Your task to perform on an android device: manage bookmarks in the chrome app Image 0: 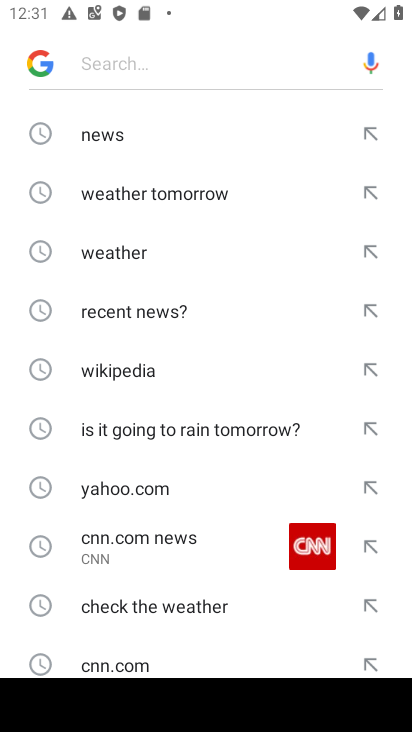
Step 0: press home button
Your task to perform on an android device: manage bookmarks in the chrome app Image 1: 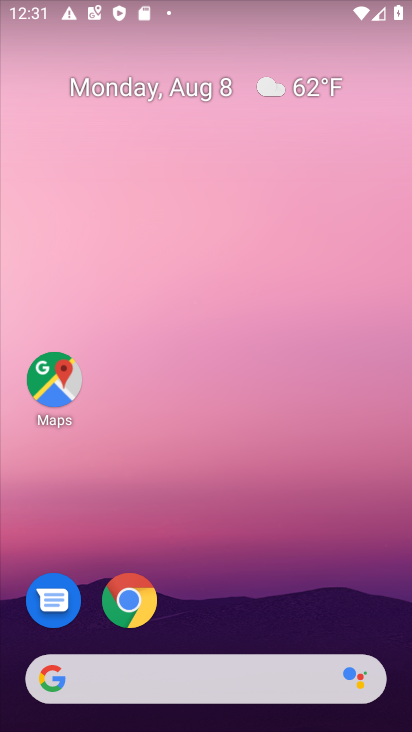
Step 1: click (141, 587)
Your task to perform on an android device: manage bookmarks in the chrome app Image 2: 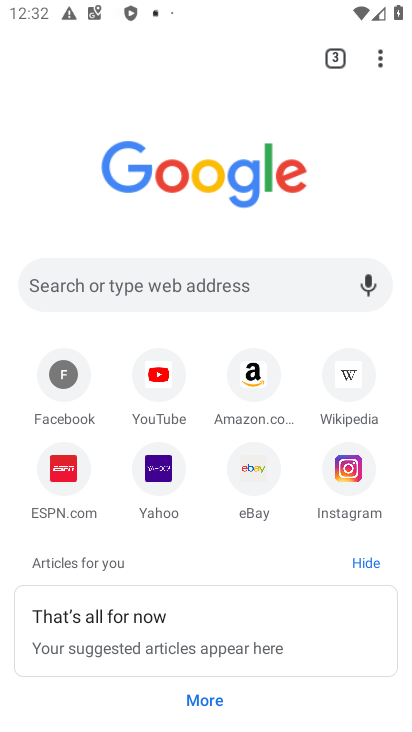
Step 2: click (379, 50)
Your task to perform on an android device: manage bookmarks in the chrome app Image 3: 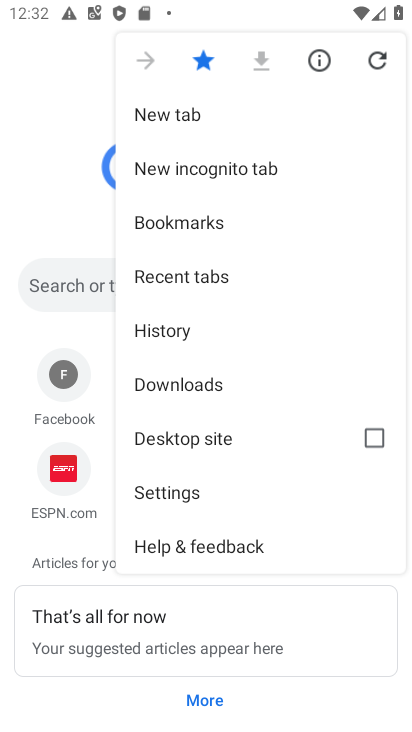
Step 3: click (269, 222)
Your task to perform on an android device: manage bookmarks in the chrome app Image 4: 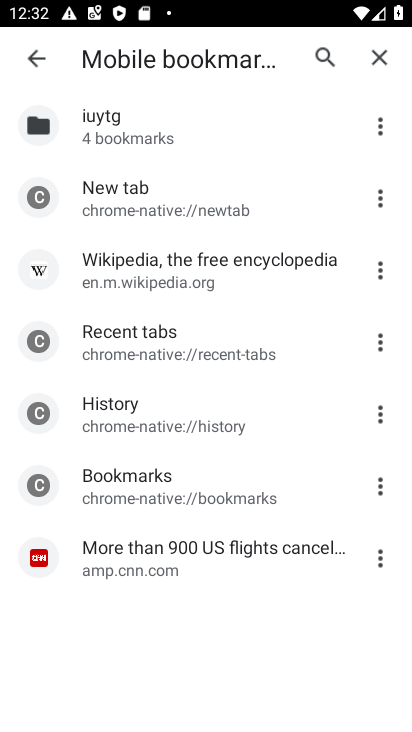
Step 4: click (374, 557)
Your task to perform on an android device: manage bookmarks in the chrome app Image 5: 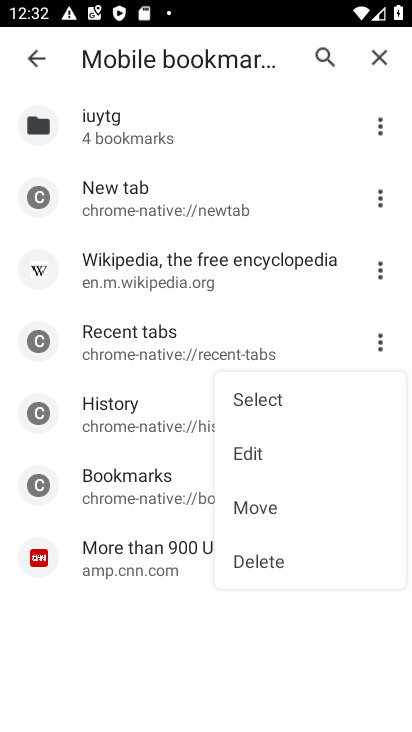
Step 5: click (279, 555)
Your task to perform on an android device: manage bookmarks in the chrome app Image 6: 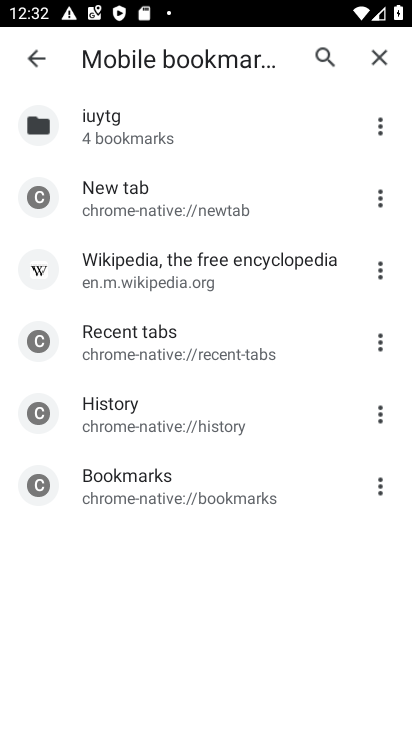
Step 6: task complete